Your task to perform on an android device: Open Amazon Image 0: 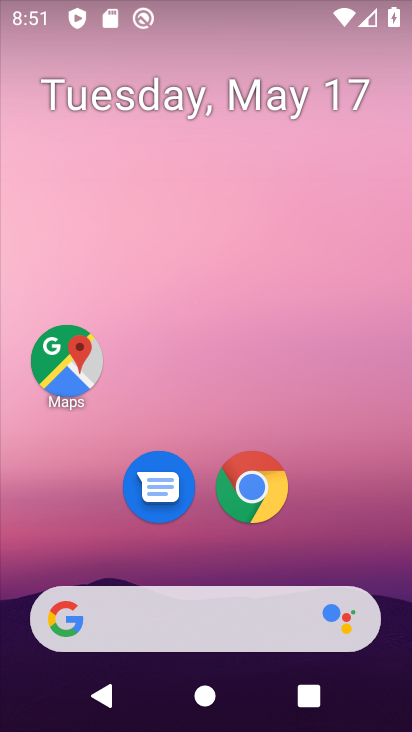
Step 0: drag from (186, 635) to (236, 261)
Your task to perform on an android device: Open Amazon Image 1: 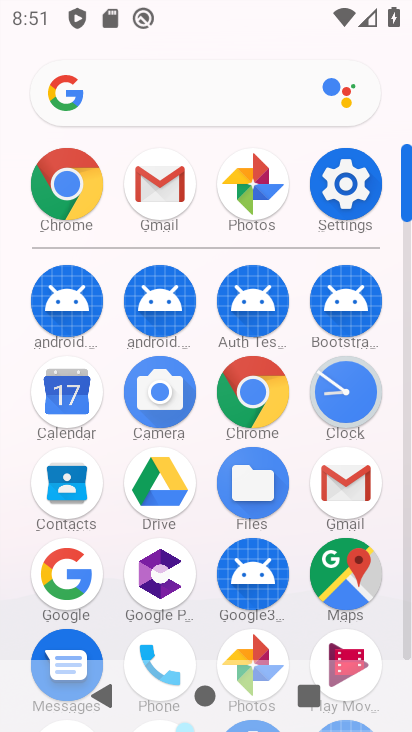
Step 1: click (61, 190)
Your task to perform on an android device: Open Amazon Image 2: 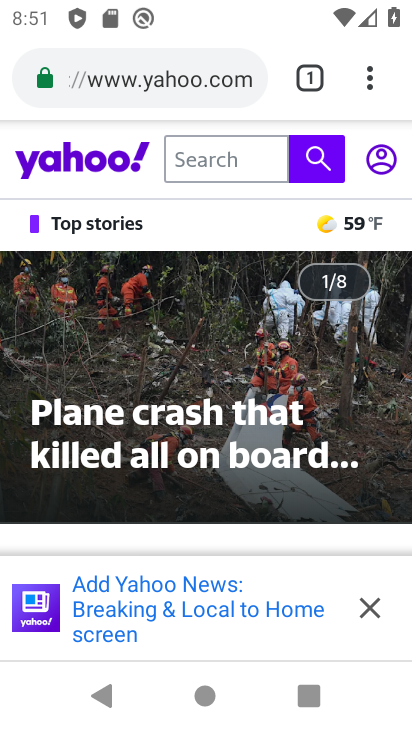
Step 2: click (312, 64)
Your task to perform on an android device: Open Amazon Image 3: 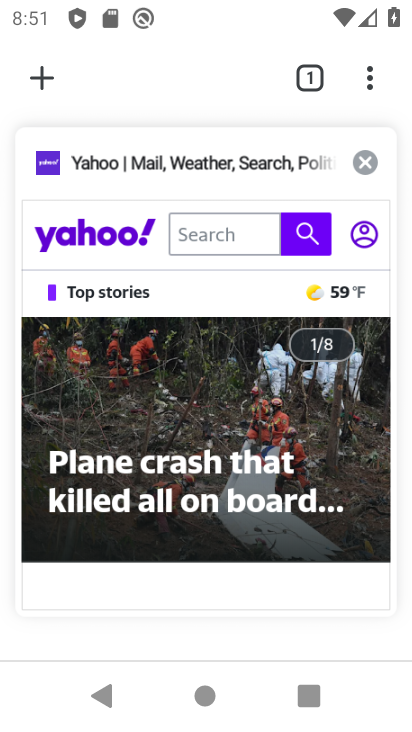
Step 3: click (34, 86)
Your task to perform on an android device: Open Amazon Image 4: 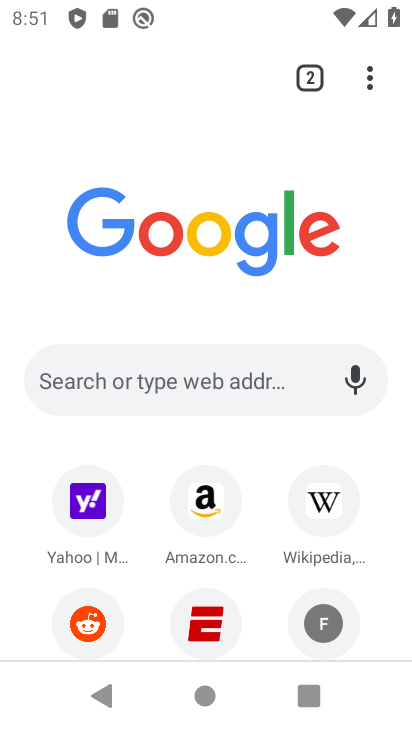
Step 4: click (202, 519)
Your task to perform on an android device: Open Amazon Image 5: 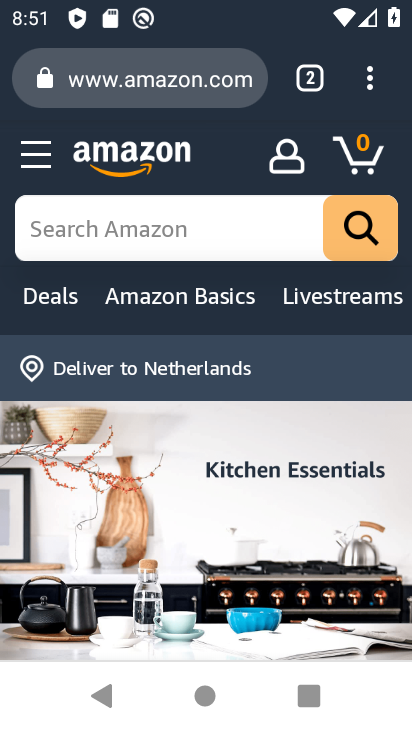
Step 5: task complete